Your task to perform on an android device: clear history in the chrome app Image 0: 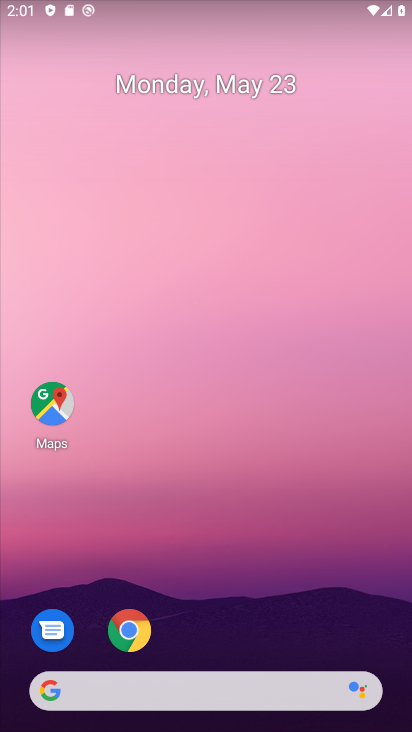
Step 0: drag from (256, 591) to (170, 0)
Your task to perform on an android device: clear history in the chrome app Image 1: 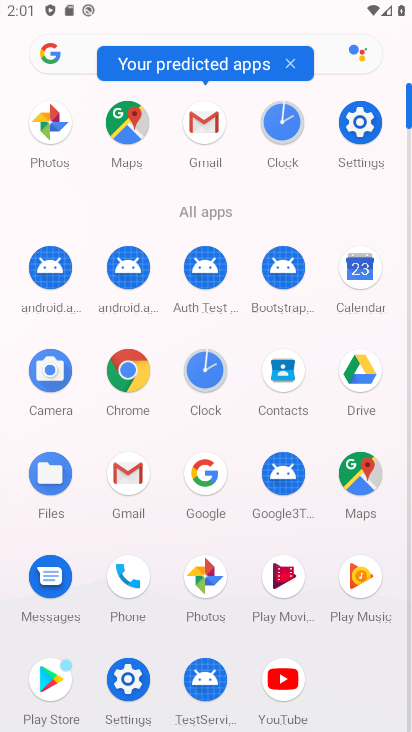
Step 1: click (130, 366)
Your task to perform on an android device: clear history in the chrome app Image 2: 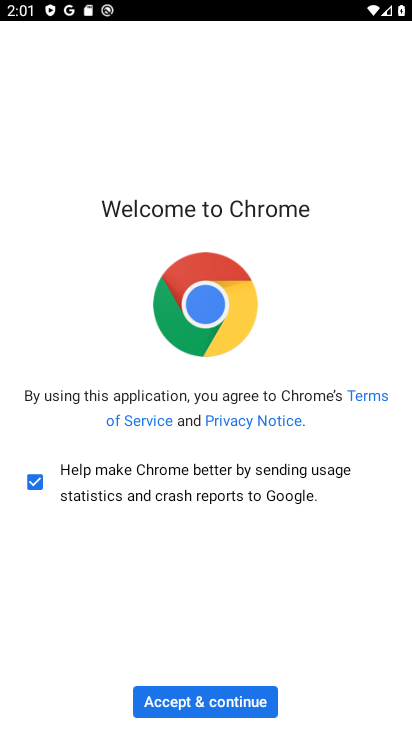
Step 2: click (230, 694)
Your task to perform on an android device: clear history in the chrome app Image 3: 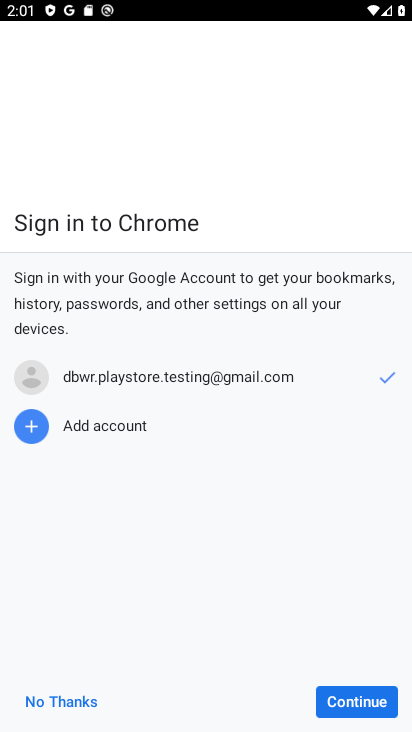
Step 3: click (54, 707)
Your task to perform on an android device: clear history in the chrome app Image 4: 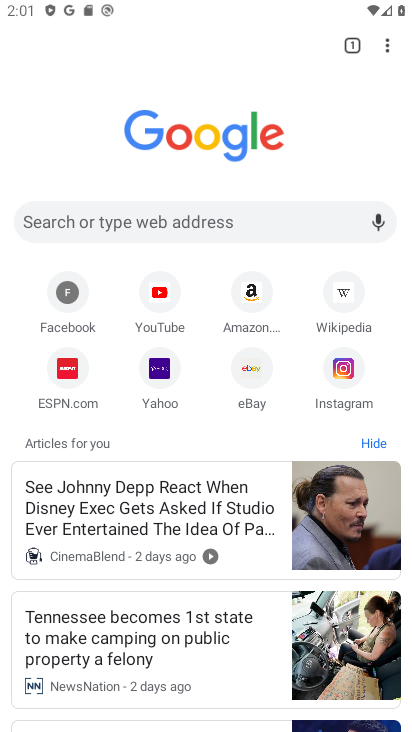
Step 4: task complete